Your task to perform on an android device: Search for sushi restaurants on Maps Image 0: 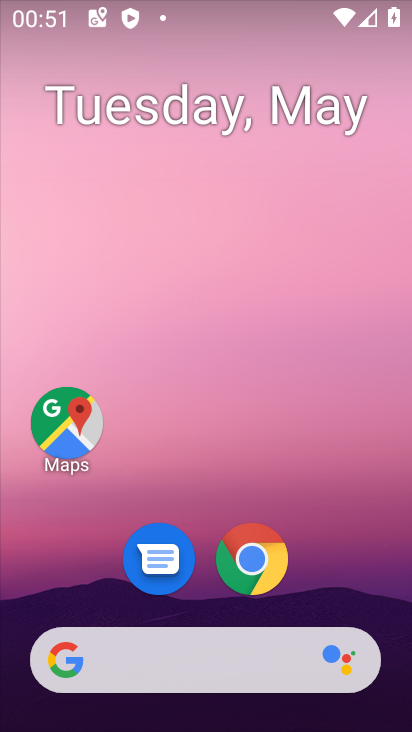
Step 0: click (50, 415)
Your task to perform on an android device: Search for sushi restaurants on Maps Image 1: 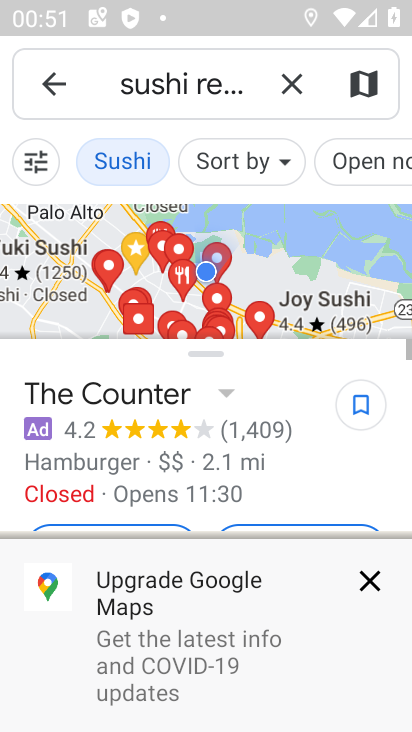
Step 1: click (305, 63)
Your task to perform on an android device: Search for sushi restaurants on Maps Image 2: 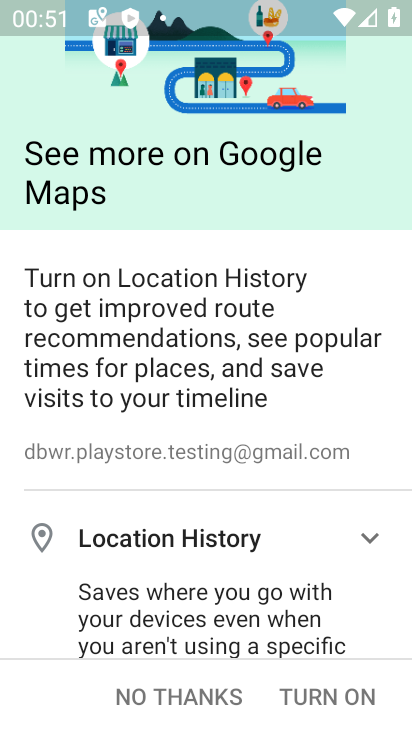
Step 2: press back button
Your task to perform on an android device: Search for sushi restaurants on Maps Image 3: 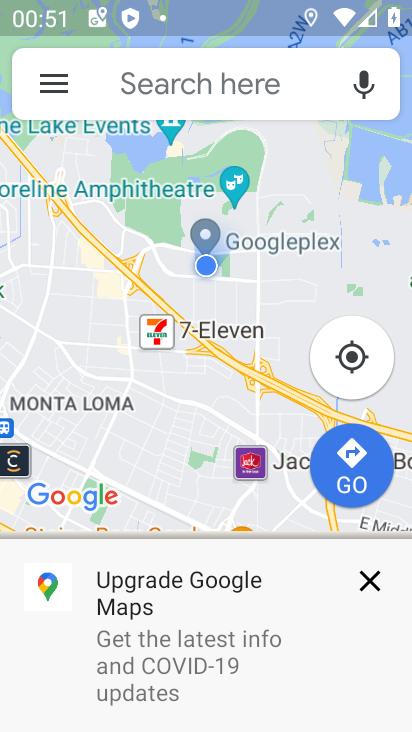
Step 3: click (197, 88)
Your task to perform on an android device: Search for sushi restaurants on Maps Image 4: 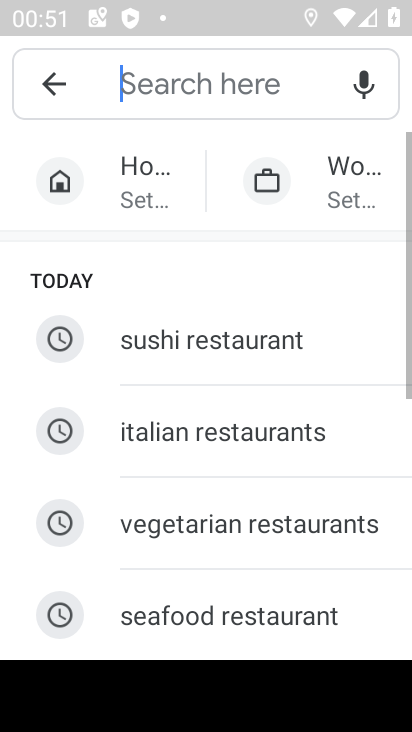
Step 4: click (188, 323)
Your task to perform on an android device: Search for sushi restaurants on Maps Image 5: 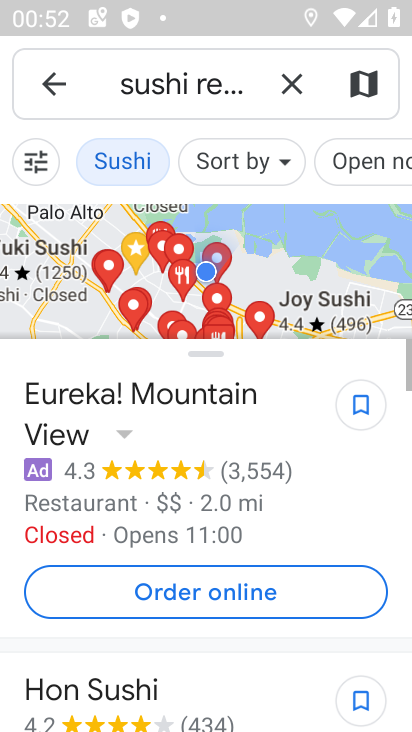
Step 5: task complete